Your task to perform on an android device: turn smart compose on in the gmail app Image 0: 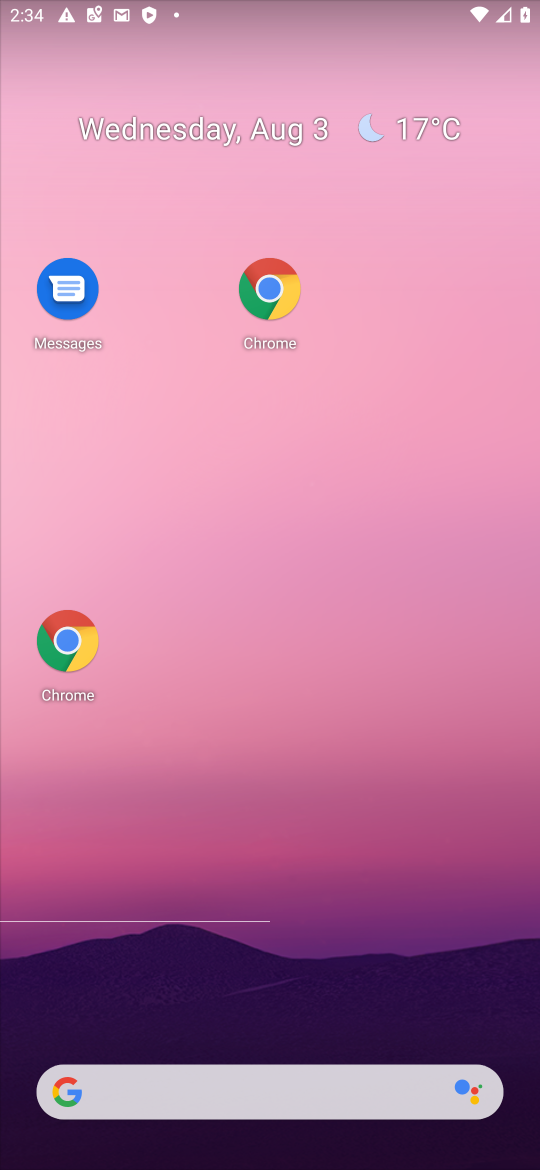
Step 0: drag from (327, 998) to (366, 129)
Your task to perform on an android device: turn smart compose on in the gmail app Image 1: 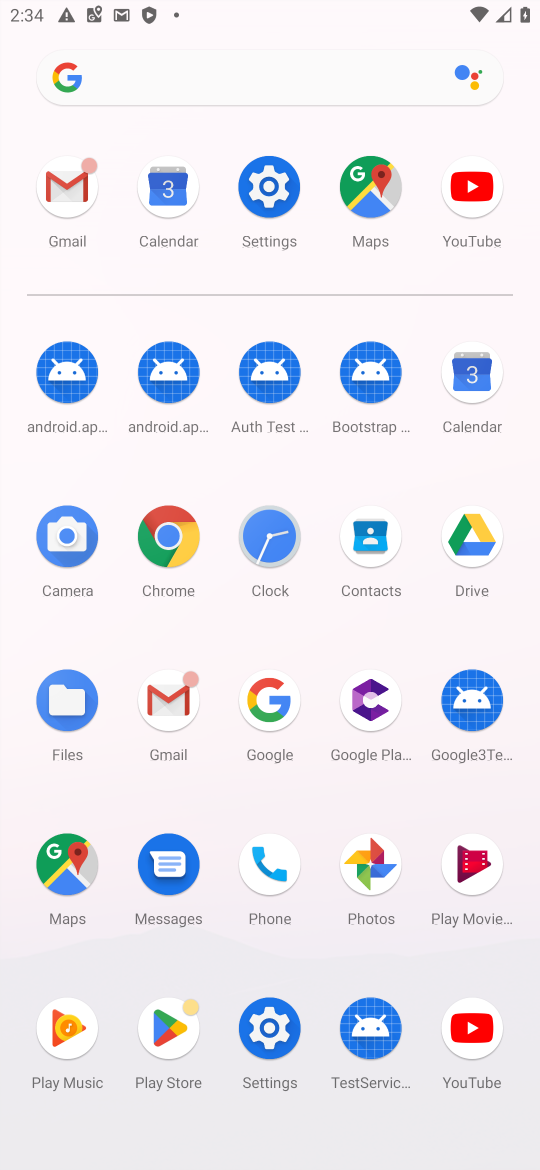
Step 1: click (172, 696)
Your task to perform on an android device: turn smart compose on in the gmail app Image 2: 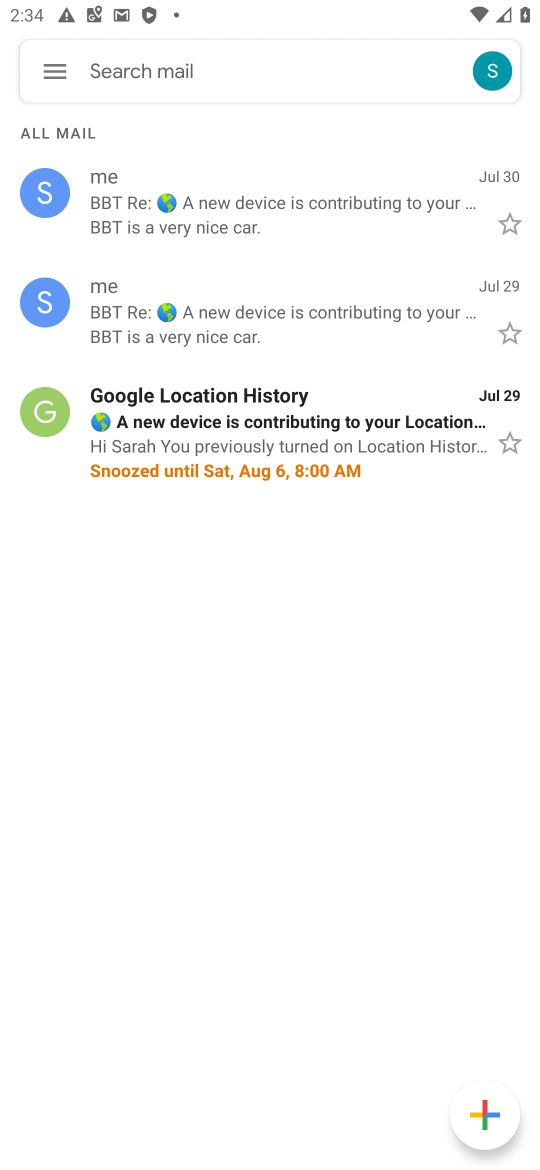
Step 2: click (44, 87)
Your task to perform on an android device: turn smart compose on in the gmail app Image 3: 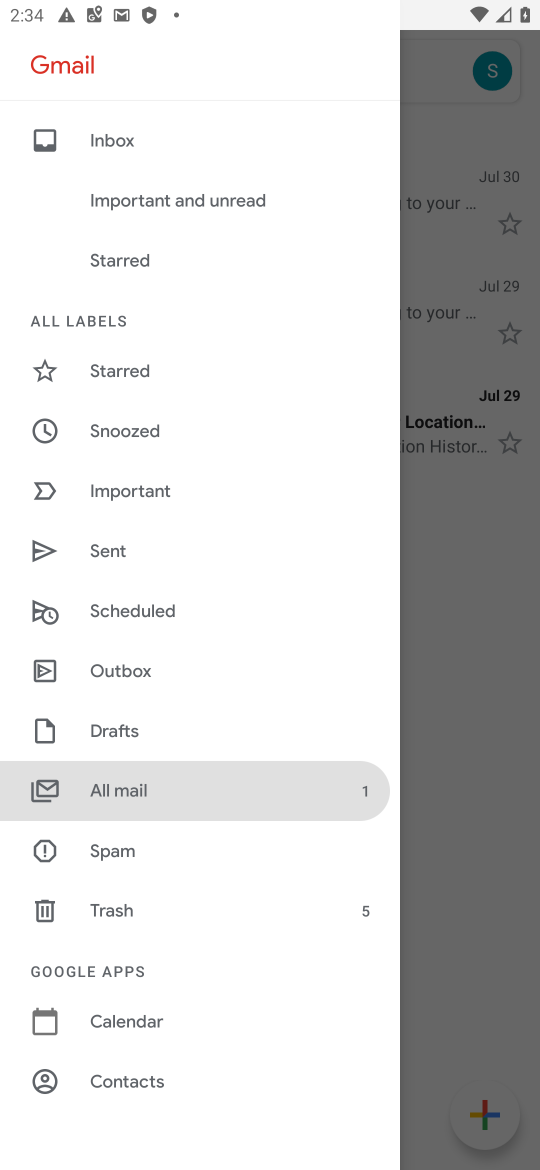
Step 3: drag from (198, 1096) to (210, 304)
Your task to perform on an android device: turn smart compose on in the gmail app Image 4: 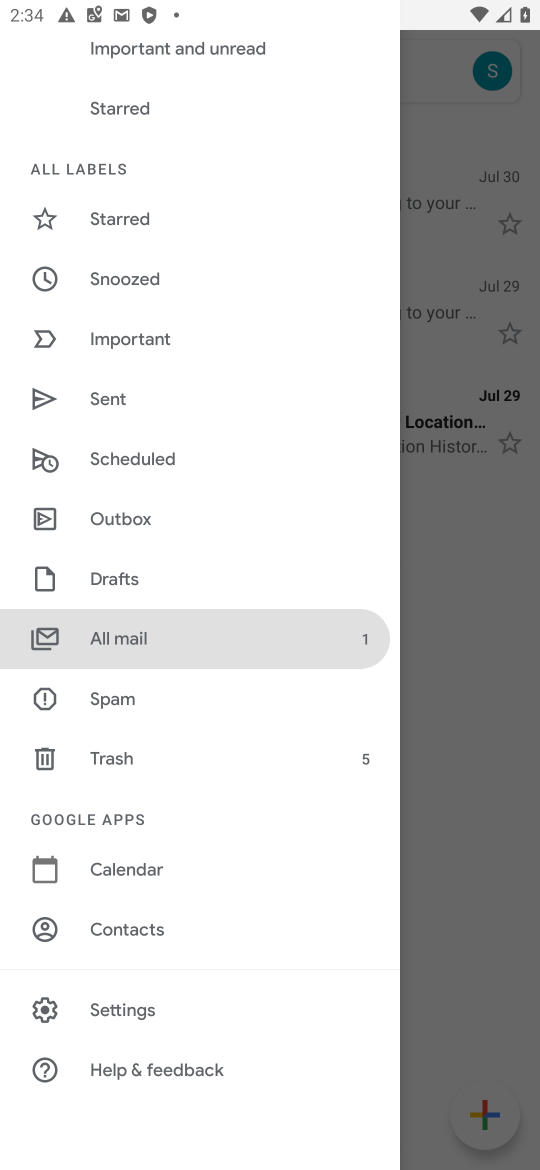
Step 4: click (135, 1008)
Your task to perform on an android device: turn smart compose on in the gmail app Image 5: 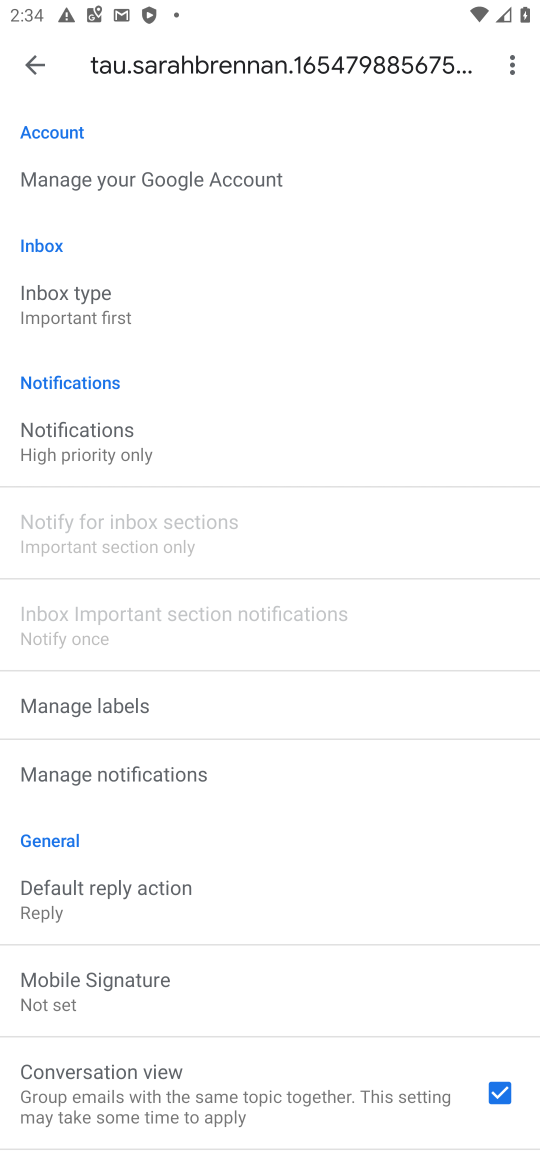
Step 5: drag from (135, 1008) to (118, 521)
Your task to perform on an android device: turn smart compose on in the gmail app Image 6: 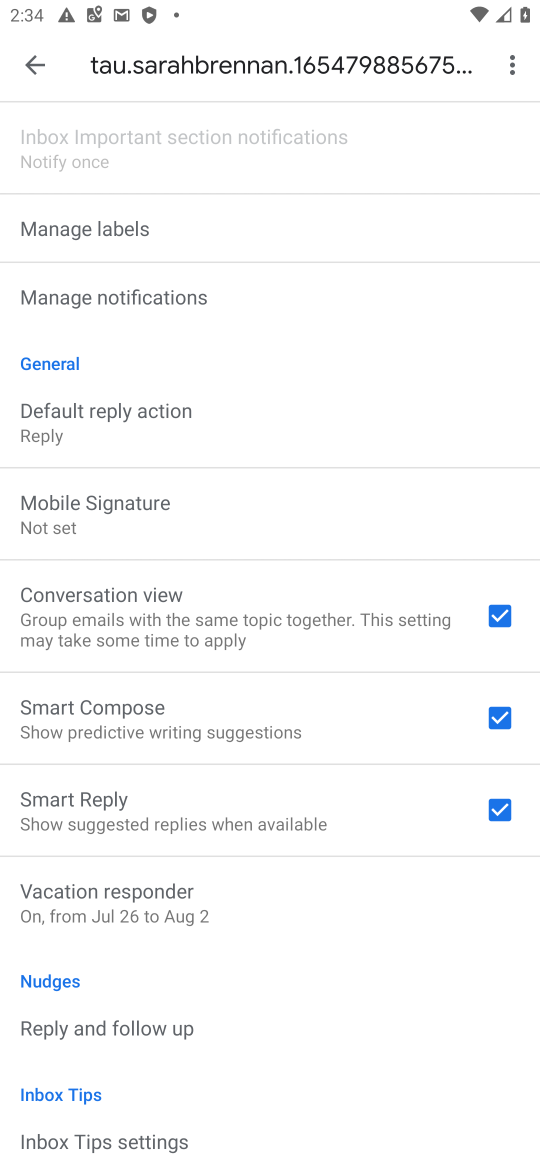
Step 6: click (517, 687)
Your task to perform on an android device: turn smart compose on in the gmail app Image 7: 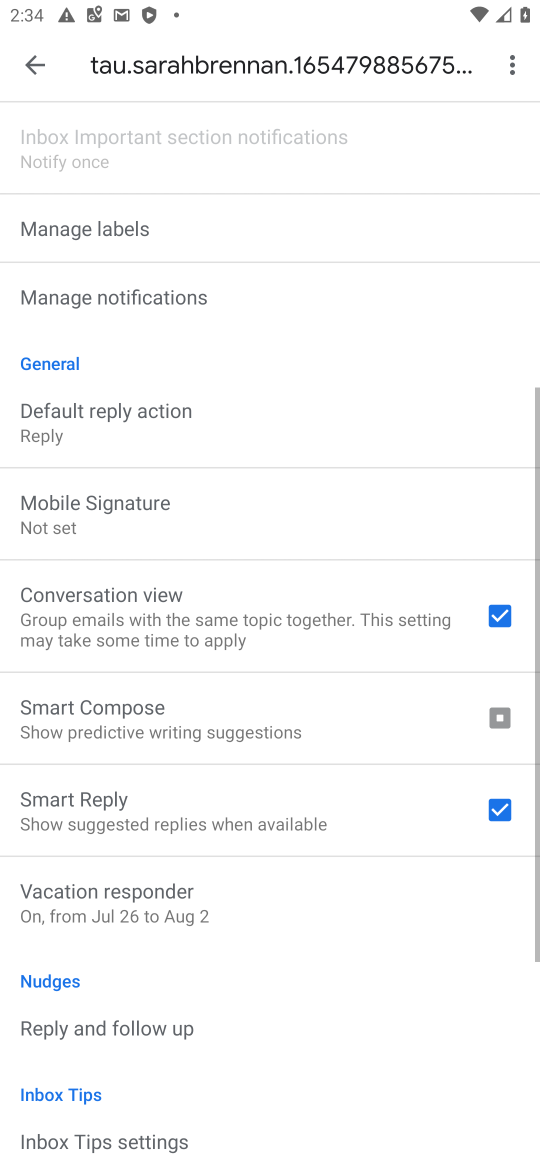
Step 7: type ""
Your task to perform on an android device: turn smart compose on in the gmail app Image 8: 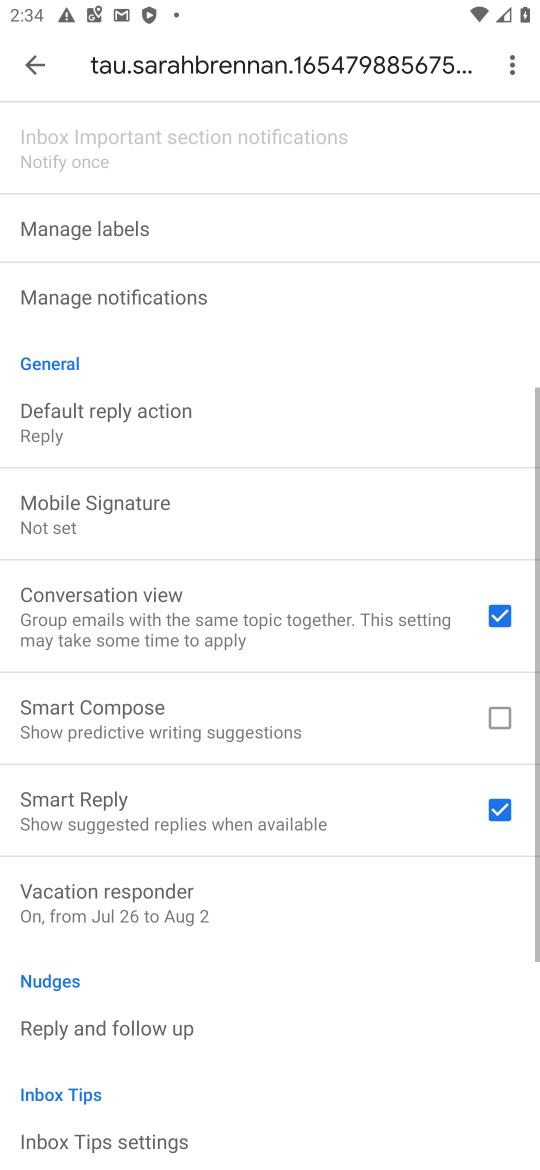
Step 8: type ""
Your task to perform on an android device: turn smart compose on in the gmail app Image 9: 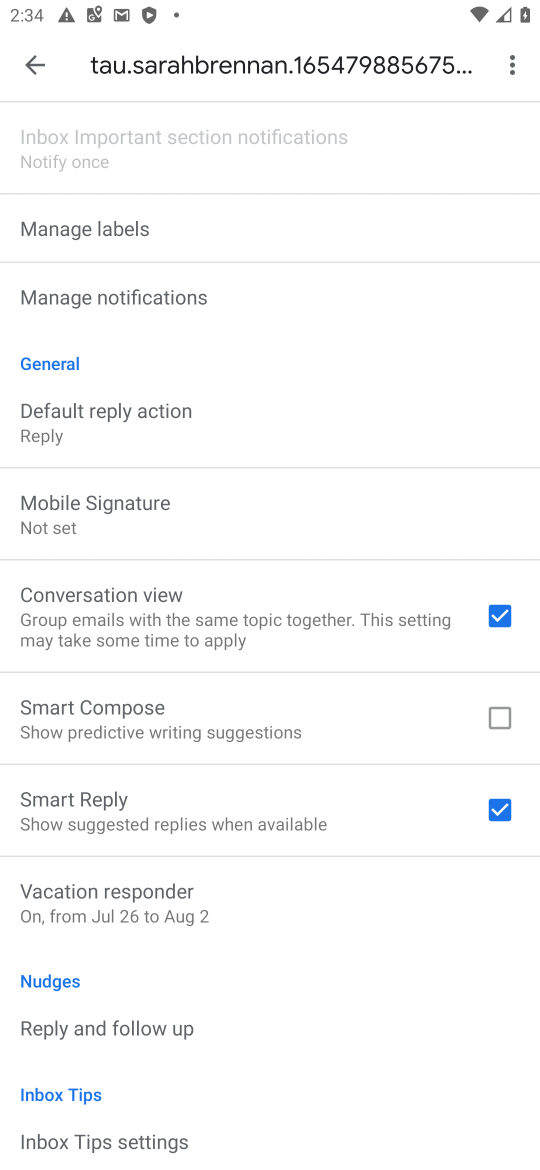
Step 9: task complete